Your task to perform on an android device: change the upload size in google photos Image 0: 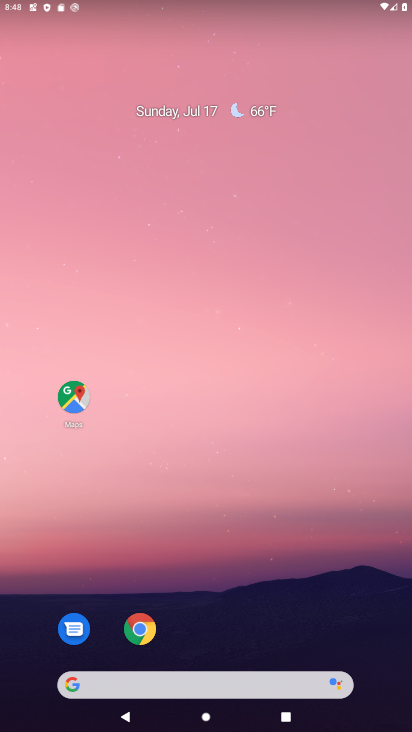
Step 0: press home button
Your task to perform on an android device: change the upload size in google photos Image 1: 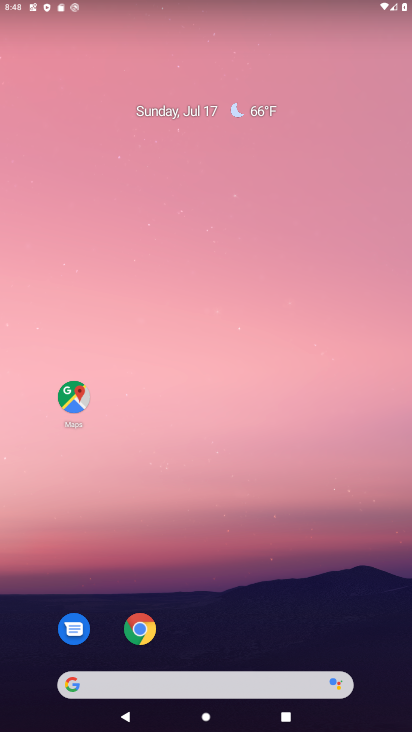
Step 1: press home button
Your task to perform on an android device: change the upload size in google photos Image 2: 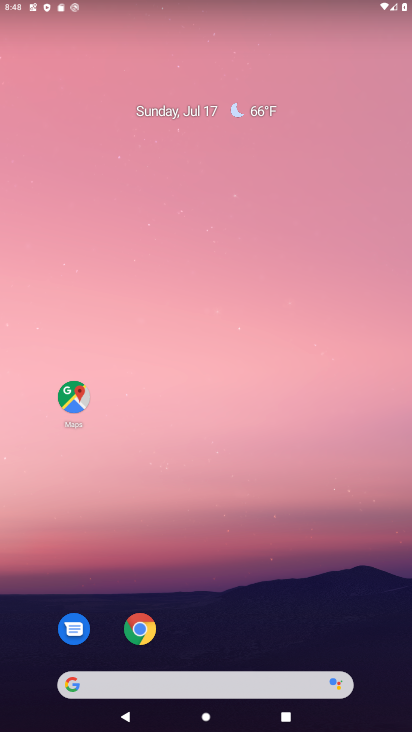
Step 2: drag from (210, 660) to (251, 43)
Your task to perform on an android device: change the upload size in google photos Image 3: 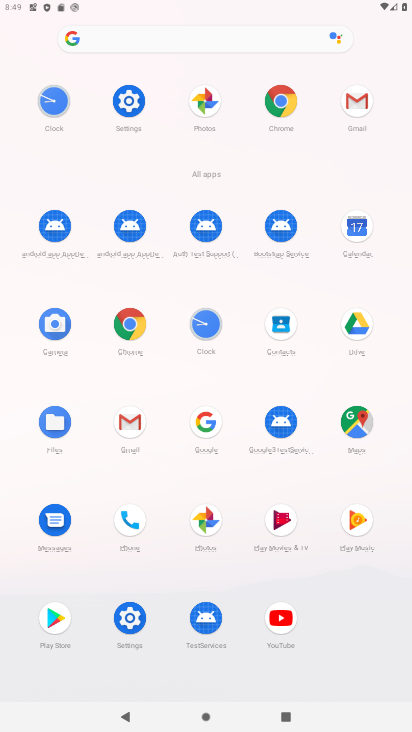
Step 3: click (204, 521)
Your task to perform on an android device: change the upload size in google photos Image 4: 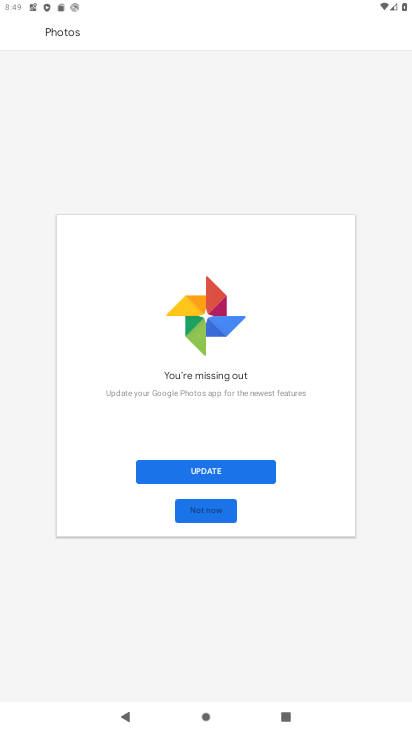
Step 4: click (203, 470)
Your task to perform on an android device: change the upload size in google photos Image 5: 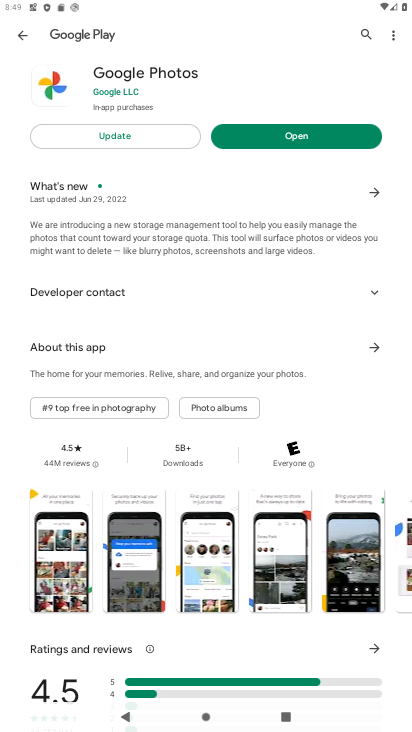
Step 5: click (116, 132)
Your task to perform on an android device: change the upload size in google photos Image 6: 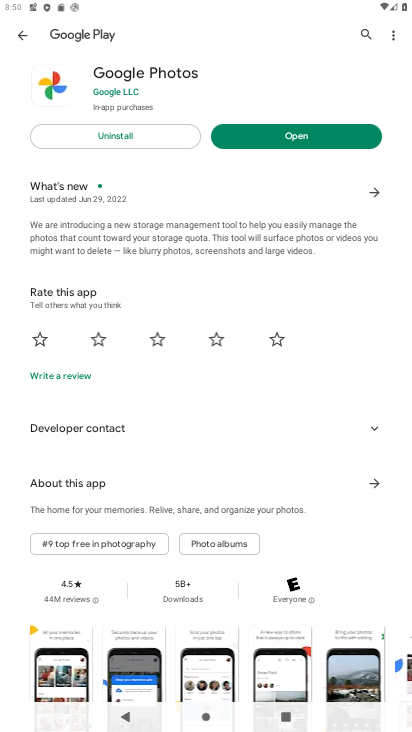
Step 6: click (297, 137)
Your task to perform on an android device: change the upload size in google photos Image 7: 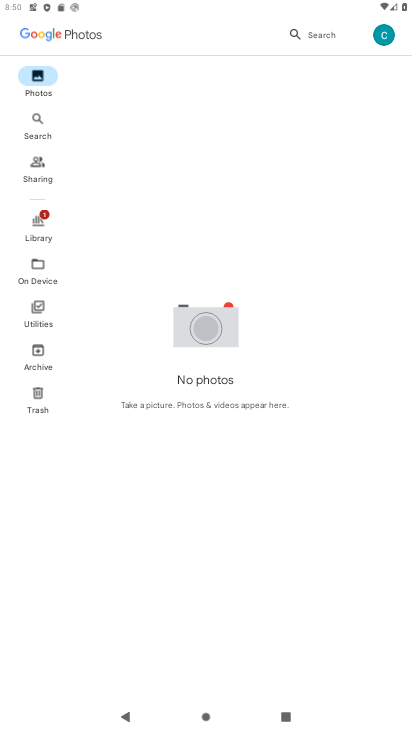
Step 7: click (381, 36)
Your task to perform on an android device: change the upload size in google photos Image 8: 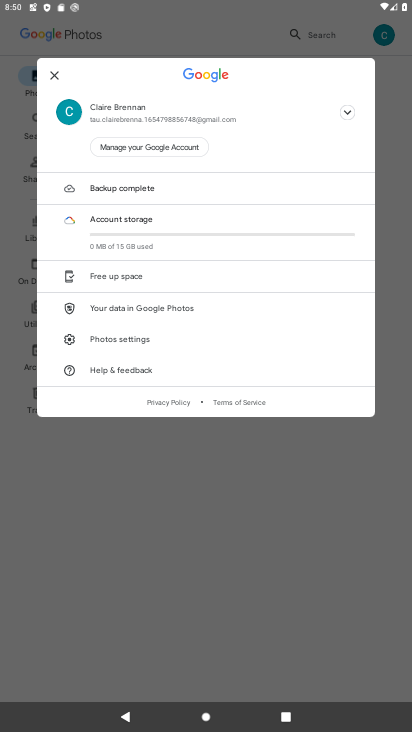
Step 8: click (137, 336)
Your task to perform on an android device: change the upload size in google photos Image 9: 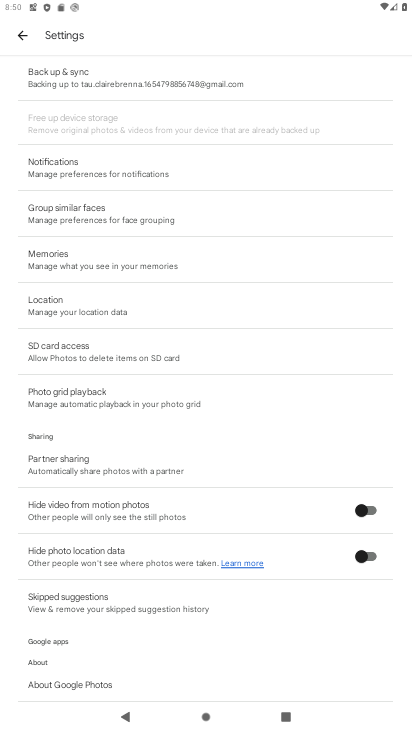
Step 9: click (80, 73)
Your task to perform on an android device: change the upload size in google photos Image 10: 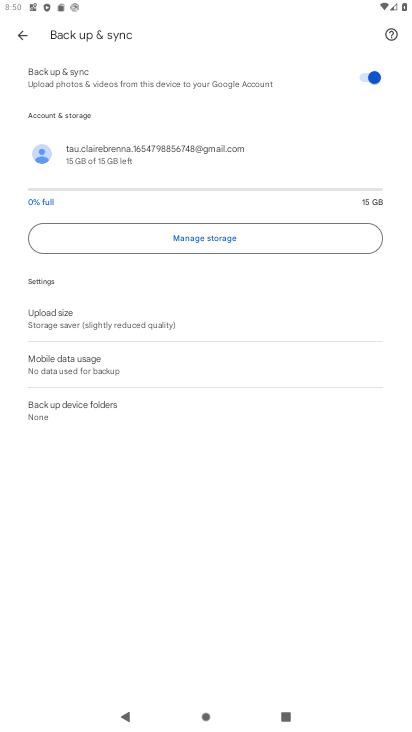
Step 10: click (94, 319)
Your task to perform on an android device: change the upload size in google photos Image 11: 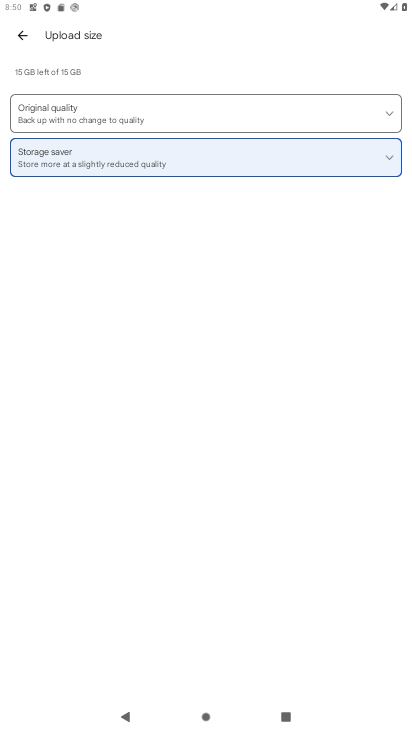
Step 11: click (124, 144)
Your task to perform on an android device: change the upload size in google photos Image 12: 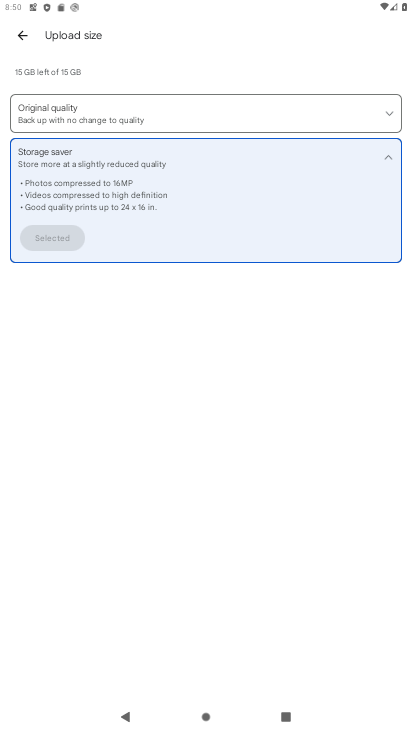
Step 12: task complete